Your task to perform on an android device: Open maps Image 0: 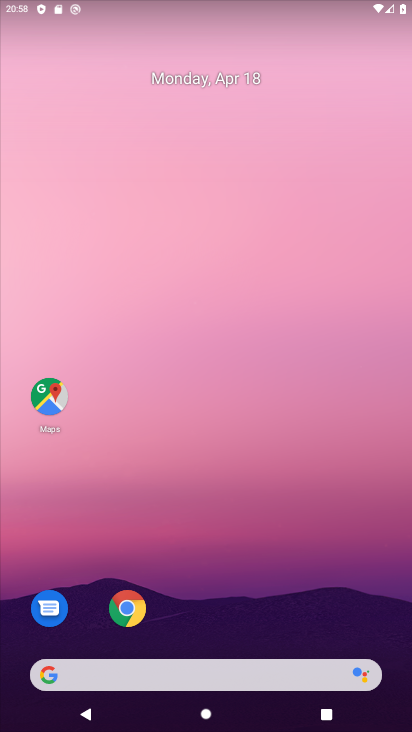
Step 0: click (45, 392)
Your task to perform on an android device: Open maps Image 1: 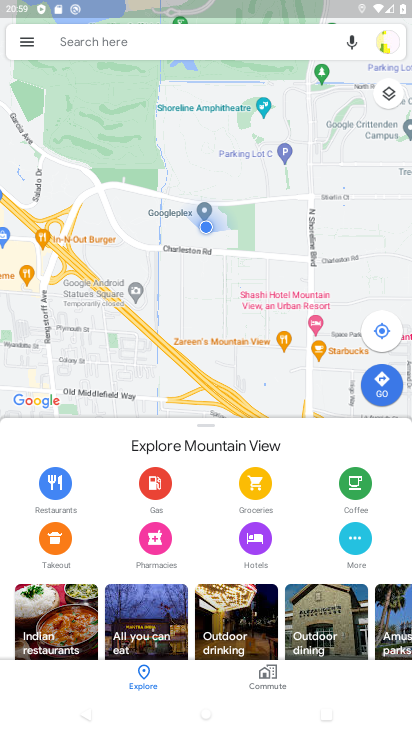
Step 1: task complete